Your task to perform on an android device: search for starred emails in the gmail app Image 0: 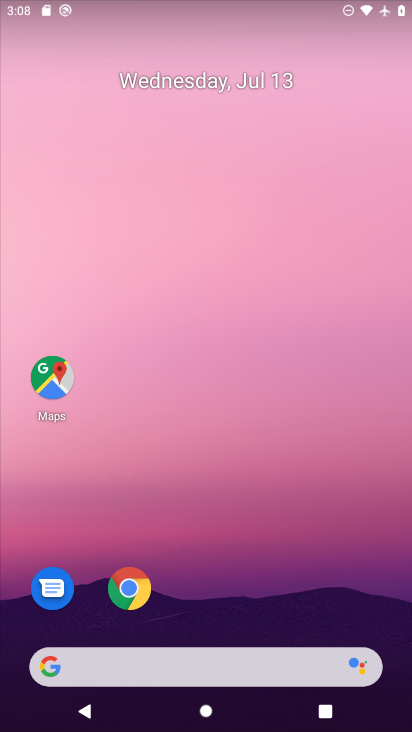
Step 0: drag from (209, 624) to (134, 126)
Your task to perform on an android device: search for starred emails in the gmail app Image 1: 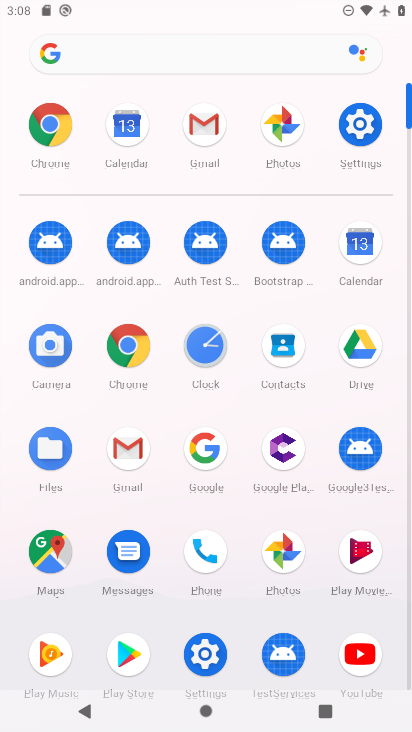
Step 1: click (207, 118)
Your task to perform on an android device: search for starred emails in the gmail app Image 2: 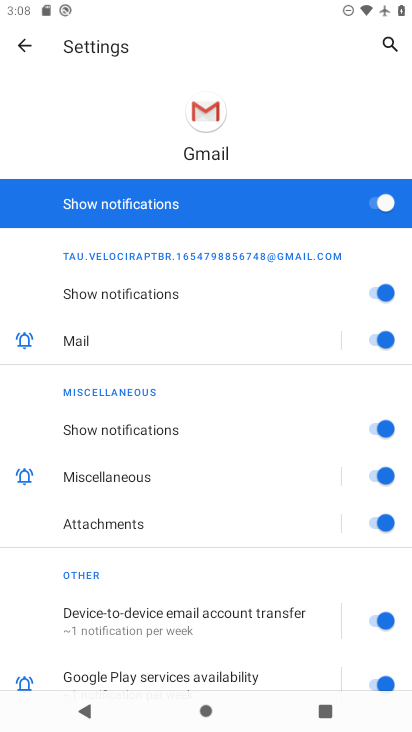
Step 2: click (21, 42)
Your task to perform on an android device: search for starred emails in the gmail app Image 3: 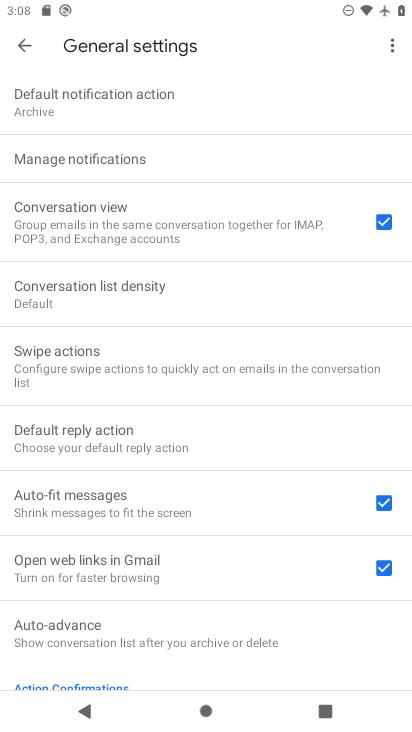
Step 3: click (17, 48)
Your task to perform on an android device: search for starred emails in the gmail app Image 4: 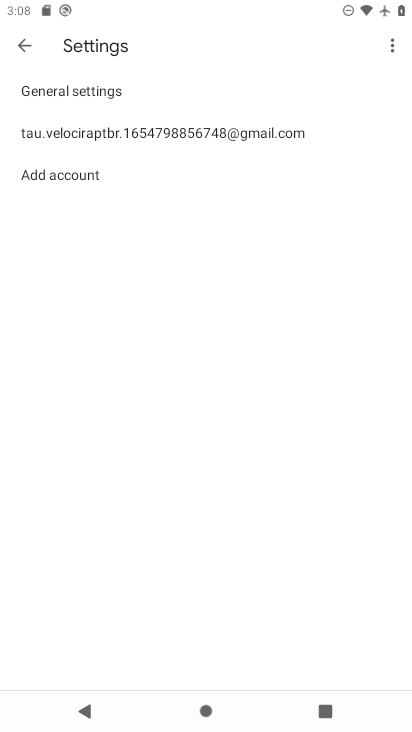
Step 4: click (11, 52)
Your task to perform on an android device: search for starred emails in the gmail app Image 5: 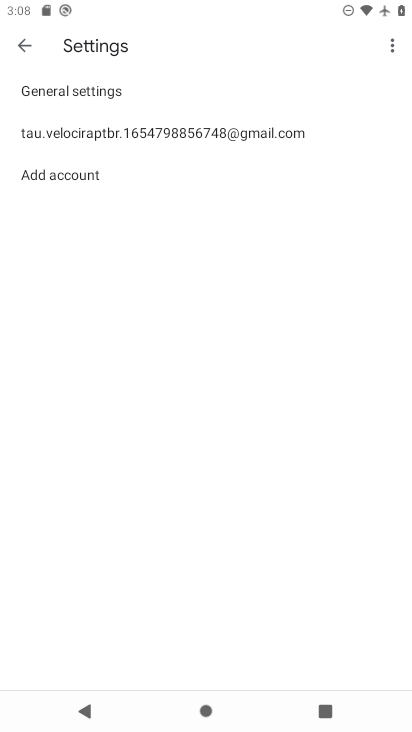
Step 5: click (23, 49)
Your task to perform on an android device: search for starred emails in the gmail app Image 6: 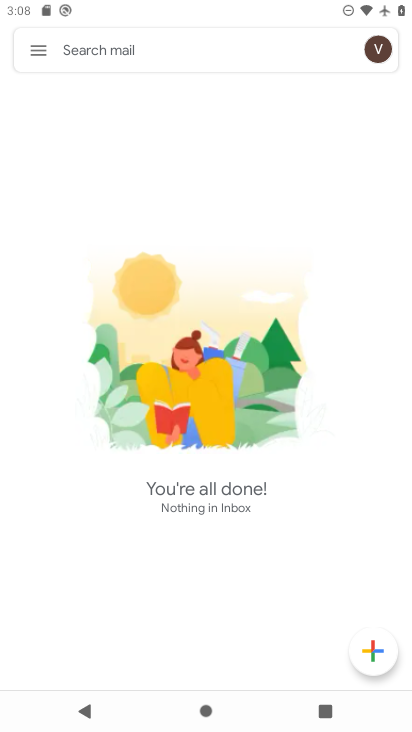
Step 6: click (33, 46)
Your task to perform on an android device: search for starred emails in the gmail app Image 7: 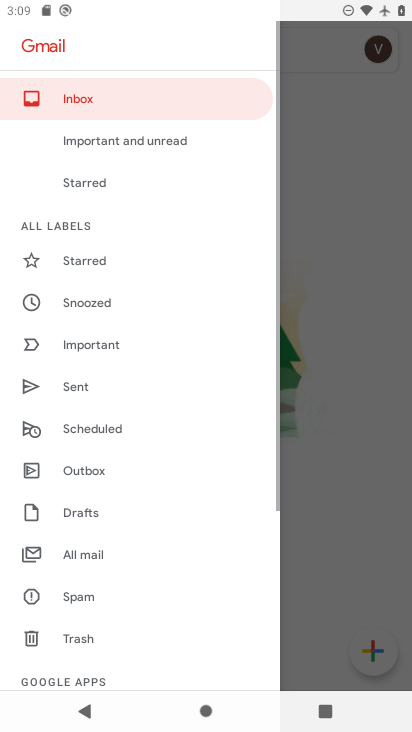
Step 7: click (93, 178)
Your task to perform on an android device: search for starred emails in the gmail app Image 8: 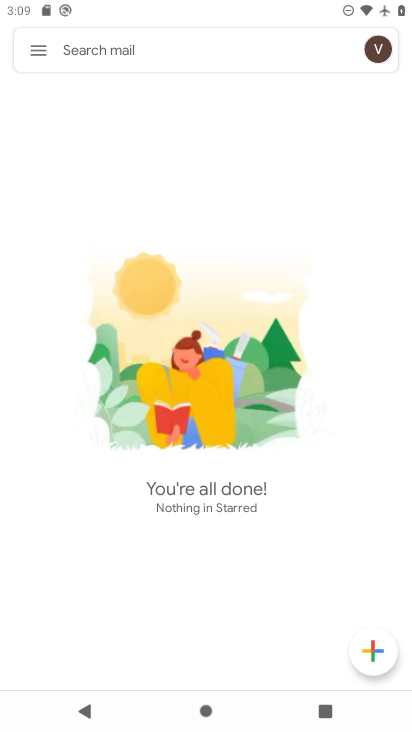
Step 8: task complete